Your task to perform on an android device: install app "Expedia: Hotels, Flights & Car" Image 0: 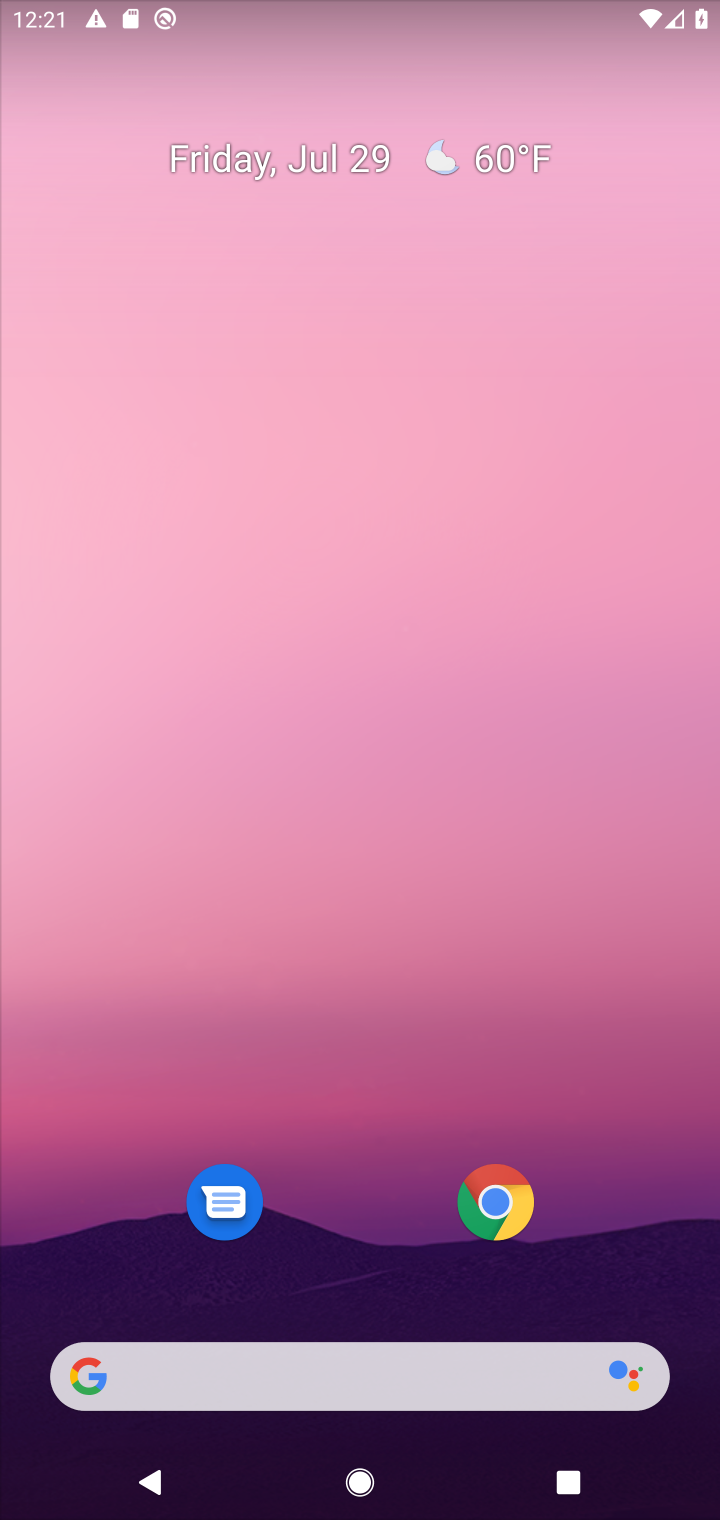
Step 0: click (310, 1400)
Your task to perform on an android device: install app "Expedia: Hotels, Flights & Car" Image 1: 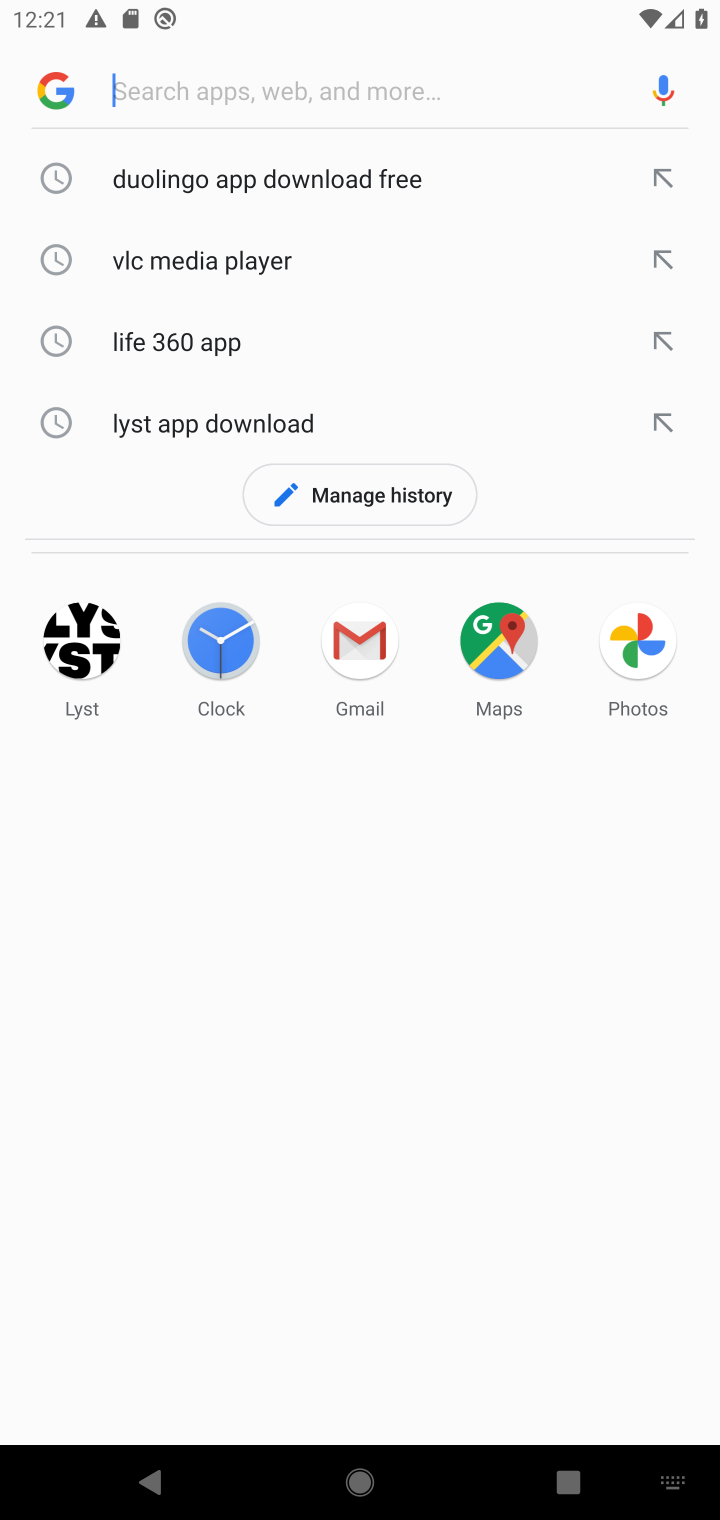
Step 1: type "expedia"
Your task to perform on an android device: install app "Expedia: Hotels, Flights & Car" Image 2: 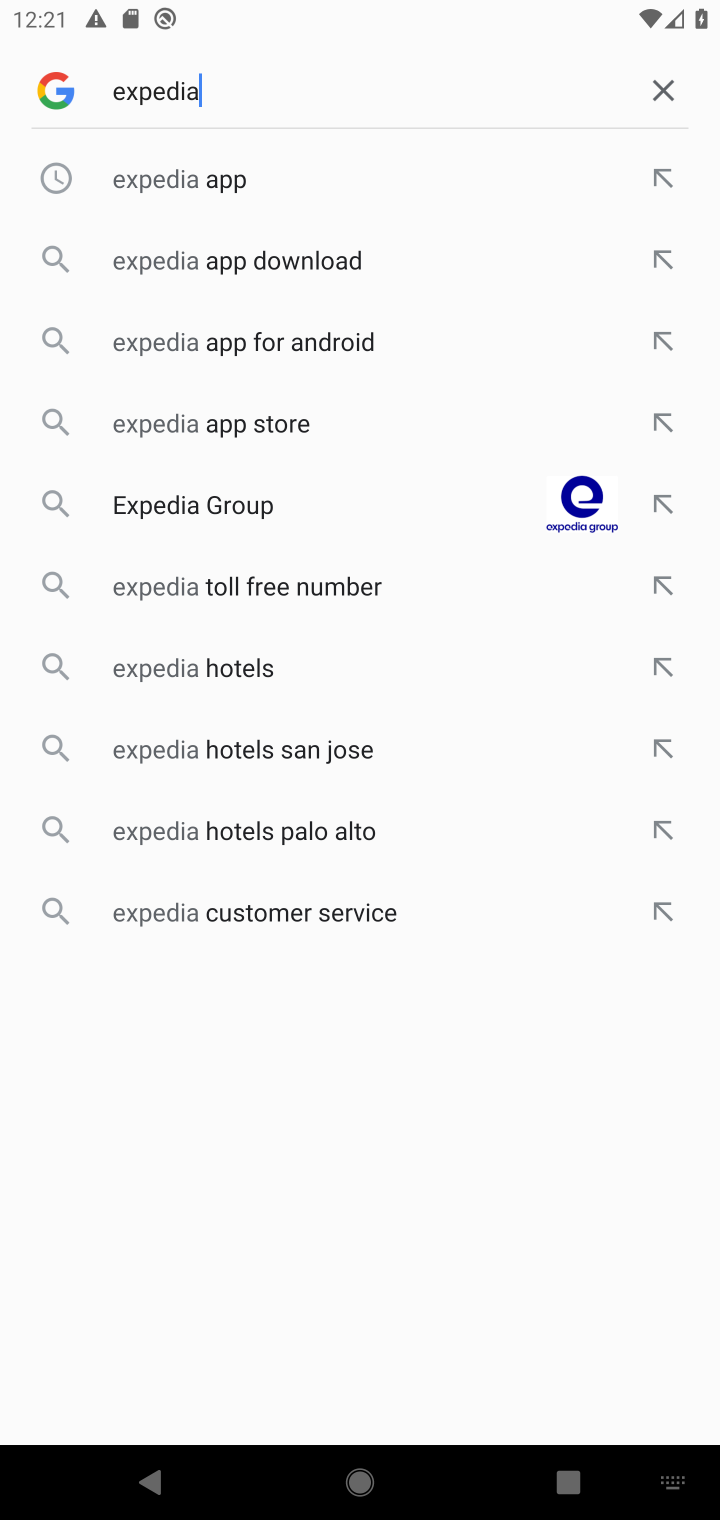
Step 2: click (684, 179)
Your task to perform on an android device: install app "Expedia: Hotels, Flights & Car" Image 3: 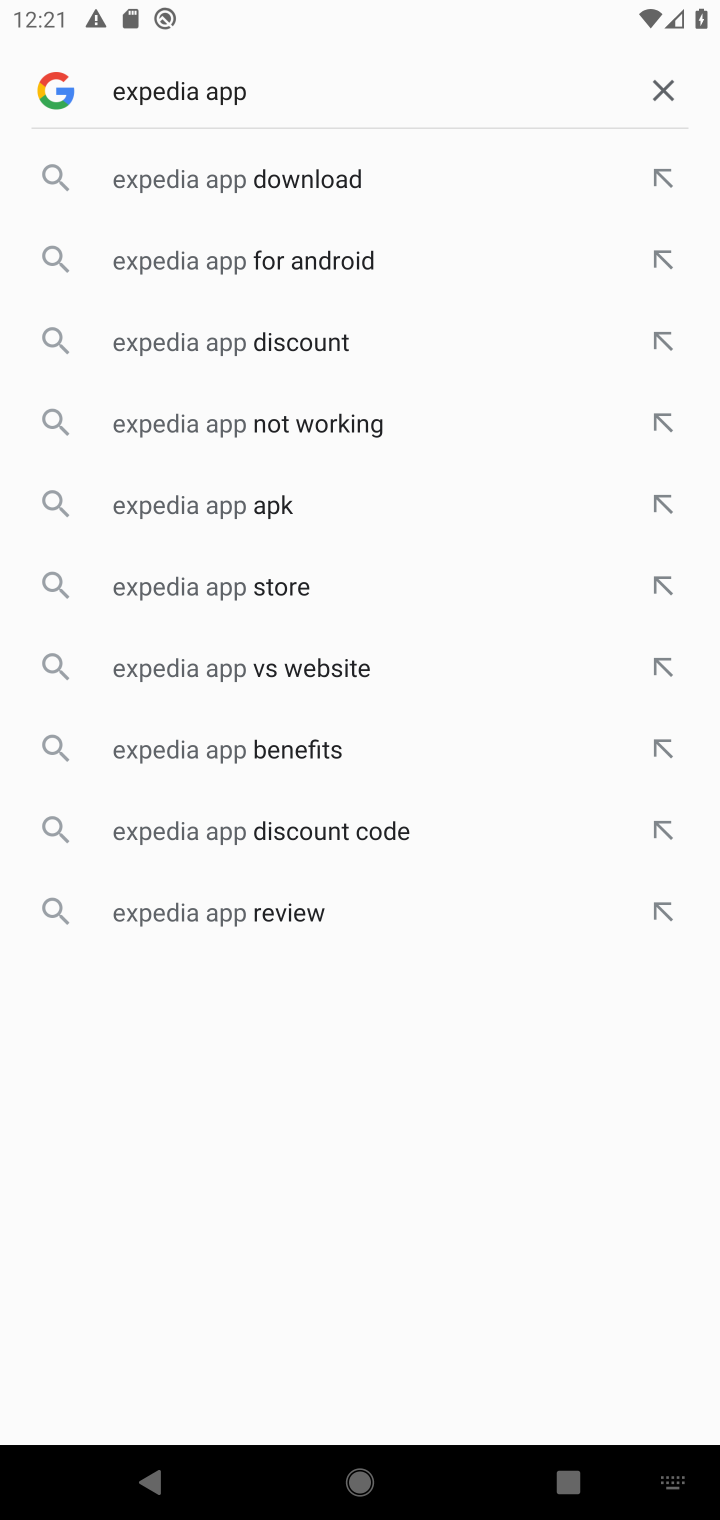
Step 3: click (409, 208)
Your task to perform on an android device: install app "Expedia: Hotels, Flights & Car" Image 4: 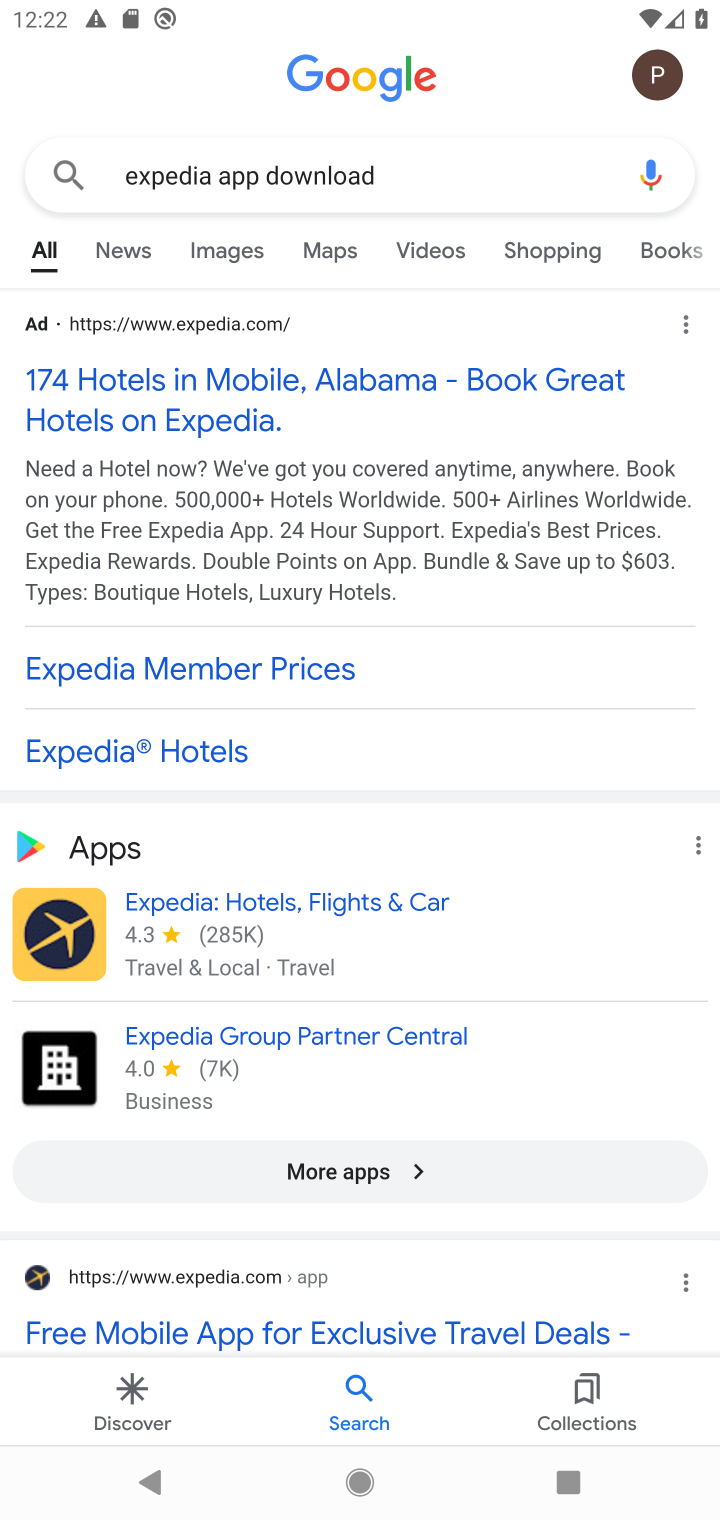
Step 4: click (351, 910)
Your task to perform on an android device: install app "Expedia: Hotels, Flights & Car" Image 5: 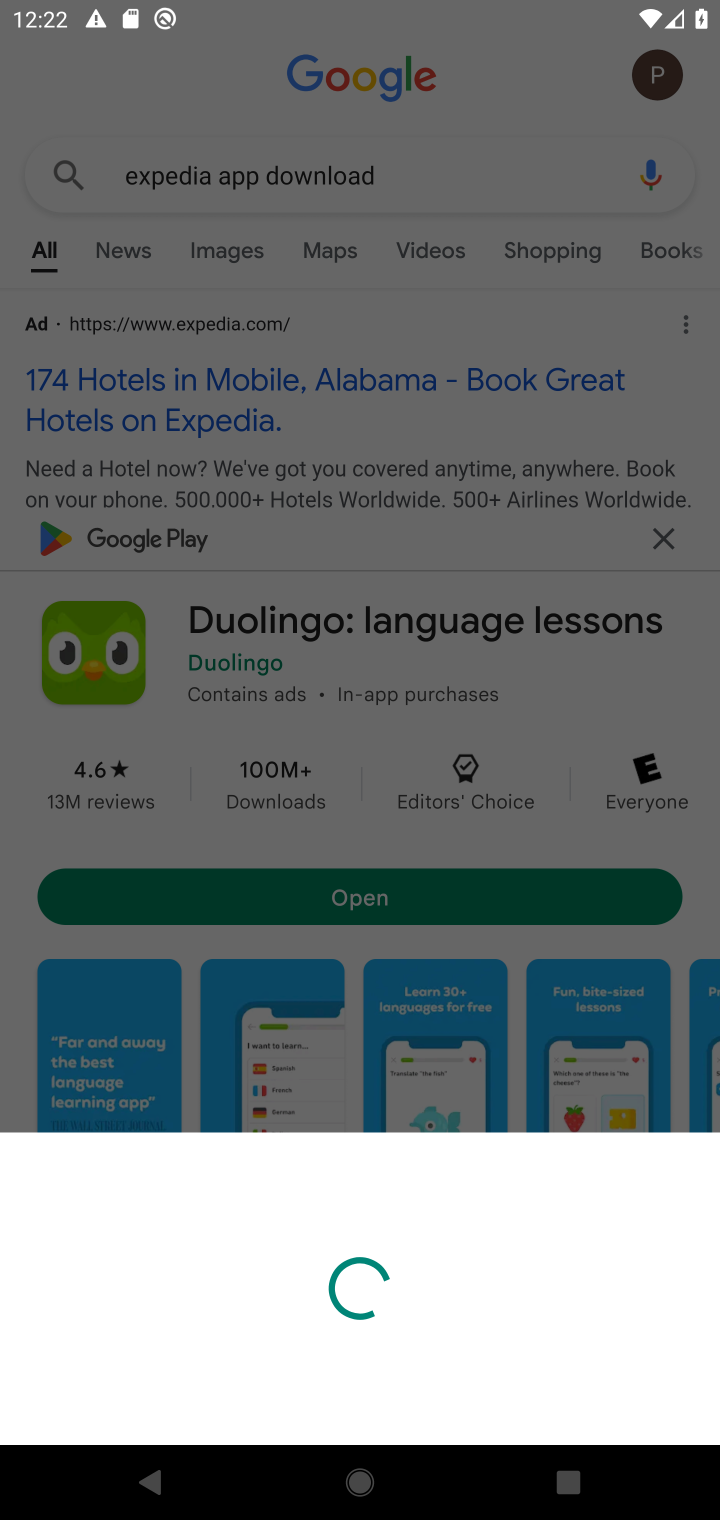
Step 5: task complete